Your task to perform on an android device: Go to battery settings Image 0: 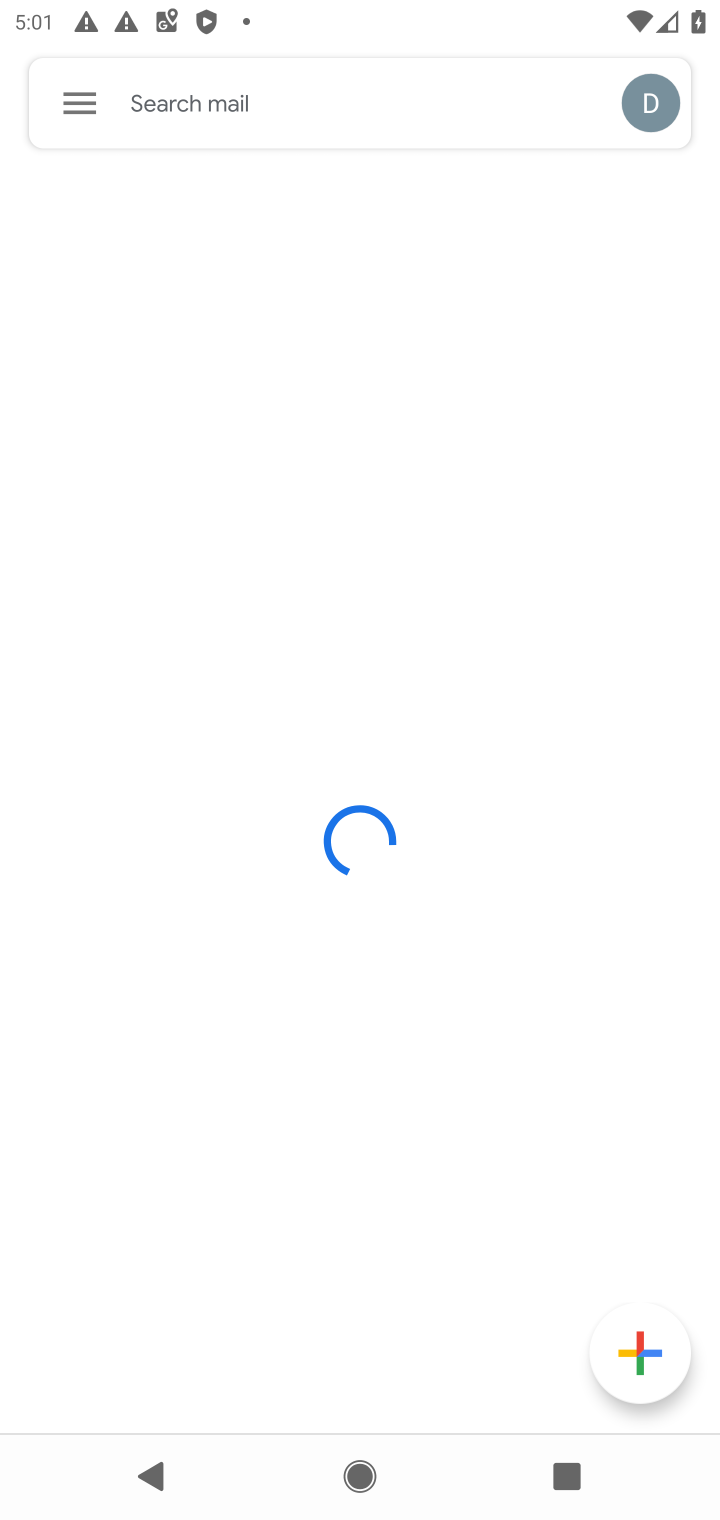
Step 0: press home button
Your task to perform on an android device: Go to battery settings Image 1: 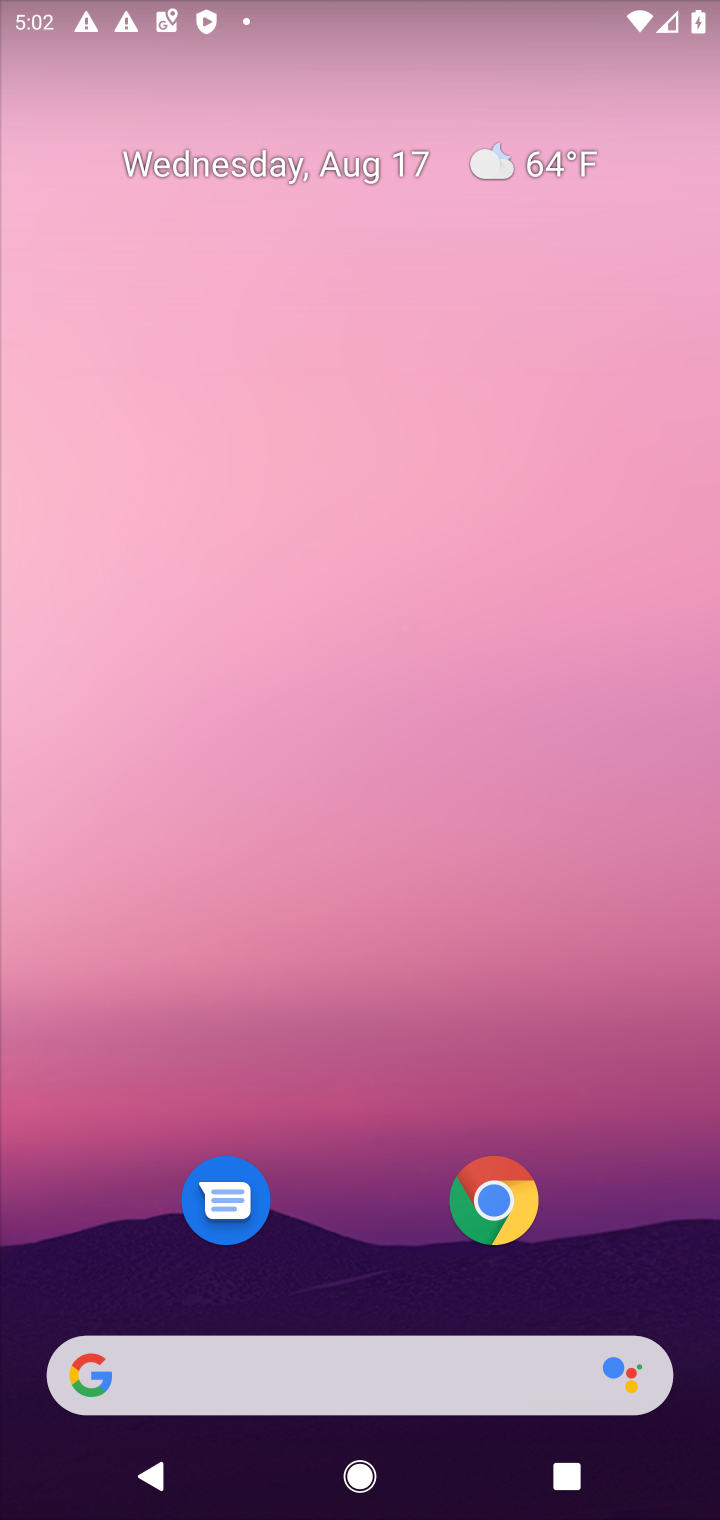
Step 1: drag from (367, 968) to (350, 178)
Your task to perform on an android device: Go to battery settings Image 2: 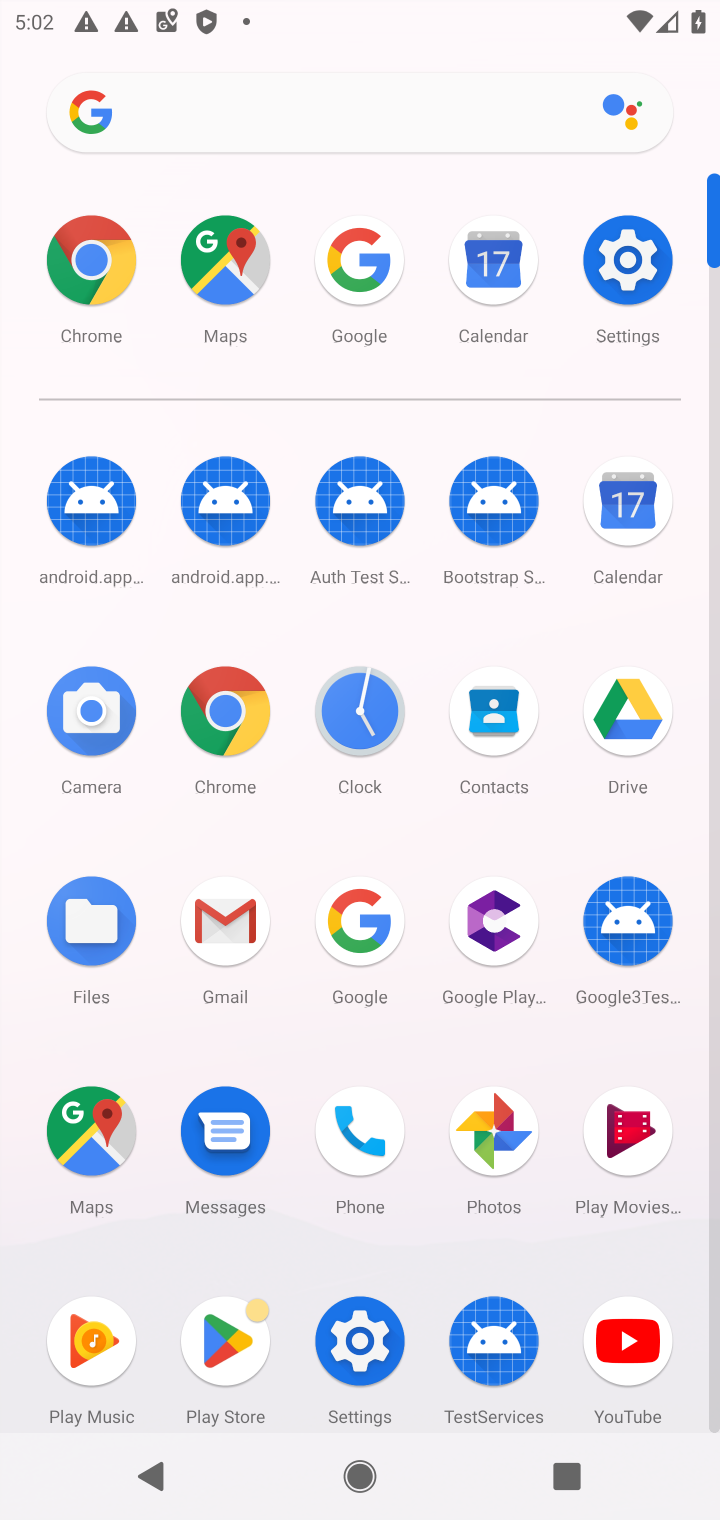
Step 2: click (623, 242)
Your task to perform on an android device: Go to battery settings Image 3: 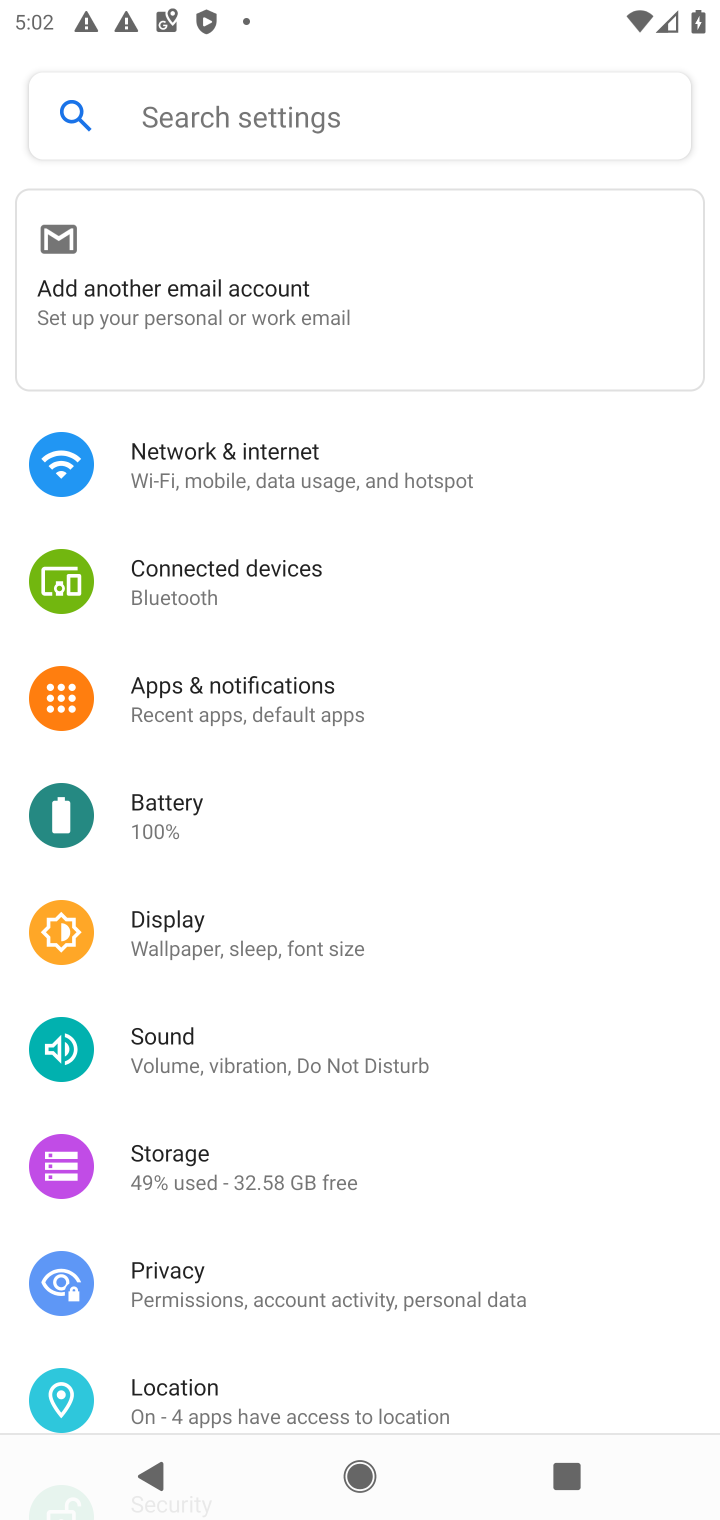
Step 3: click (166, 807)
Your task to perform on an android device: Go to battery settings Image 4: 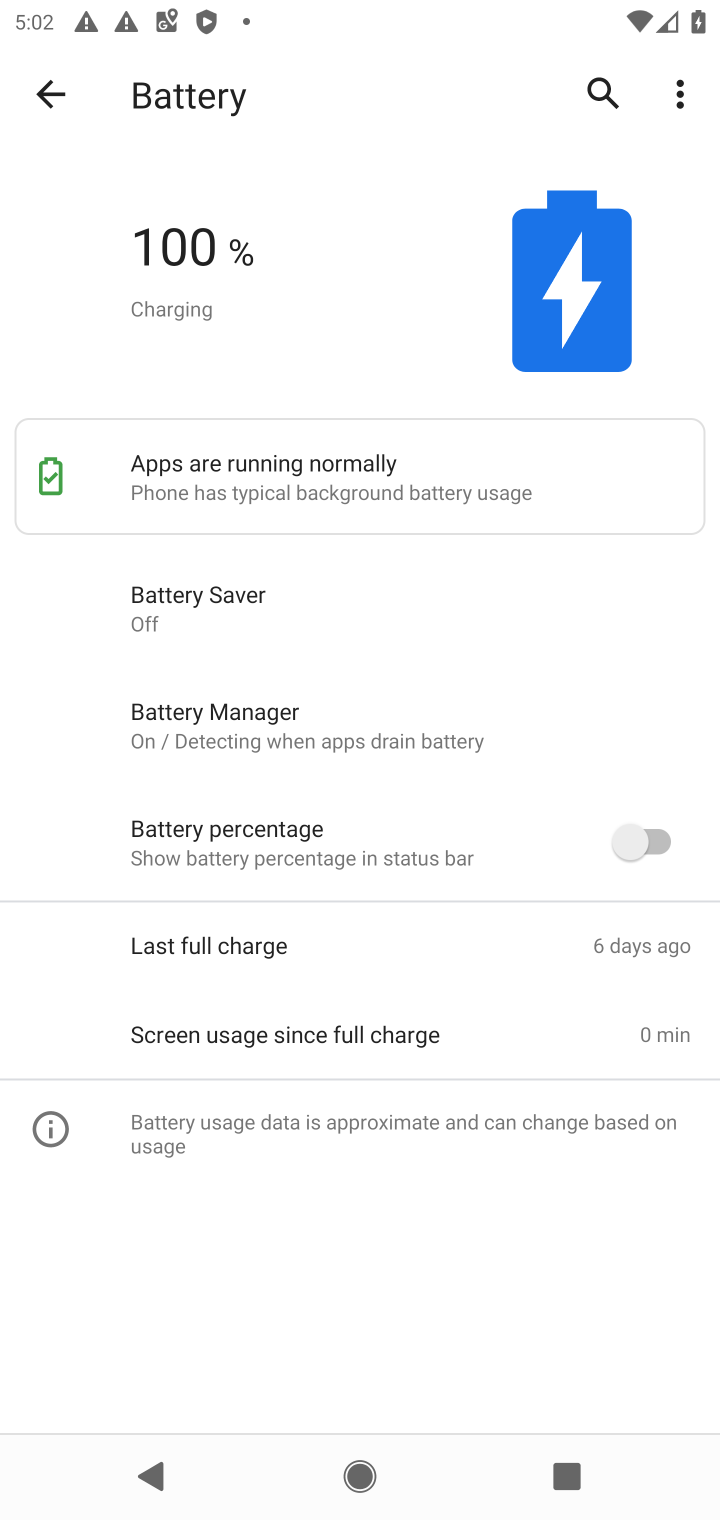
Step 4: task complete